Your task to perform on an android device: Open calendar and show me the third week of next month Image 0: 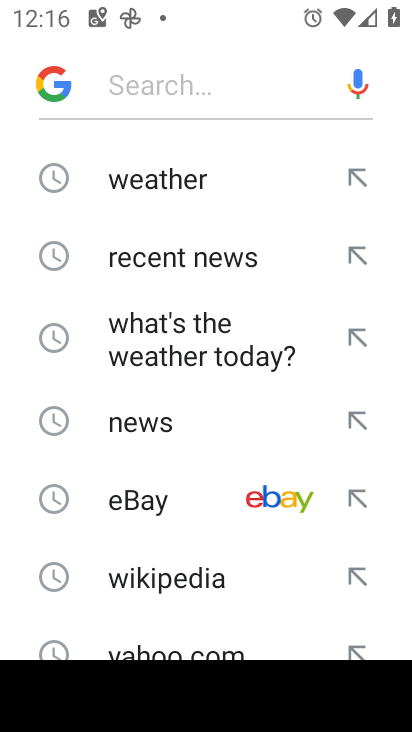
Step 0: press home button
Your task to perform on an android device: Open calendar and show me the third week of next month Image 1: 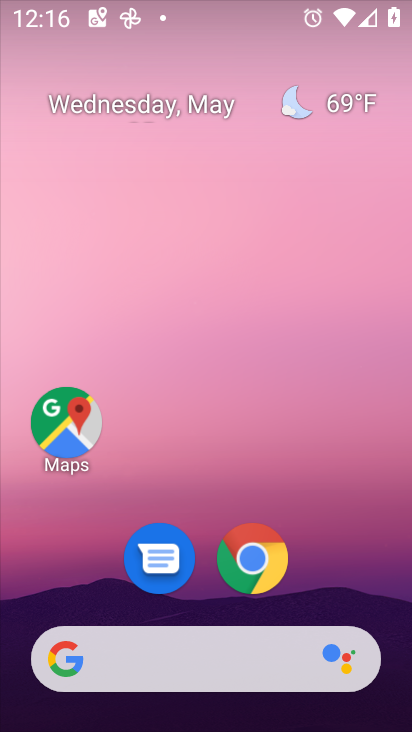
Step 1: drag from (387, 641) to (319, 34)
Your task to perform on an android device: Open calendar and show me the third week of next month Image 2: 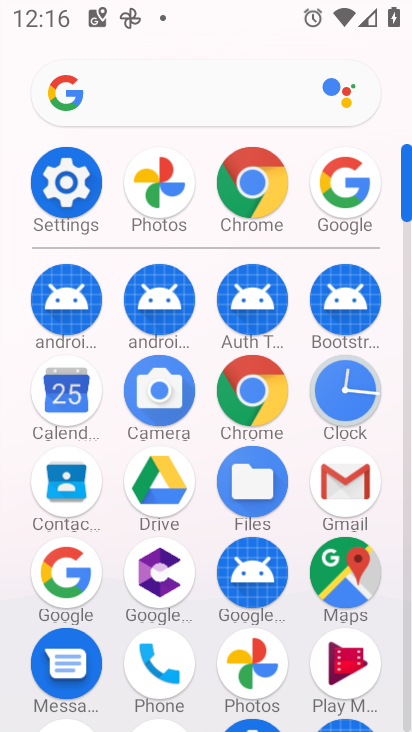
Step 2: click (75, 412)
Your task to perform on an android device: Open calendar and show me the third week of next month Image 3: 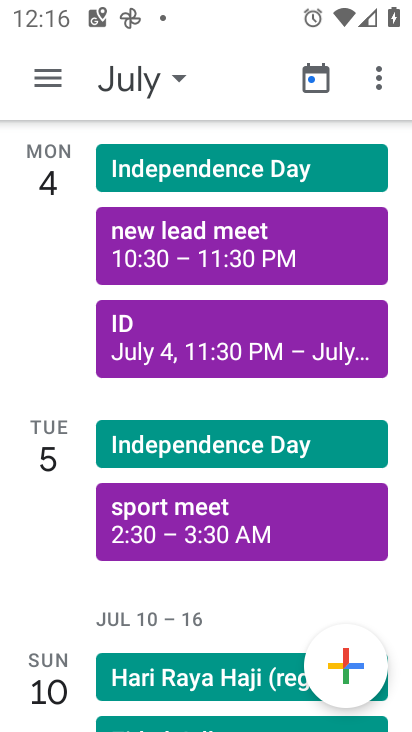
Step 3: click (129, 96)
Your task to perform on an android device: Open calendar and show me the third week of next month Image 4: 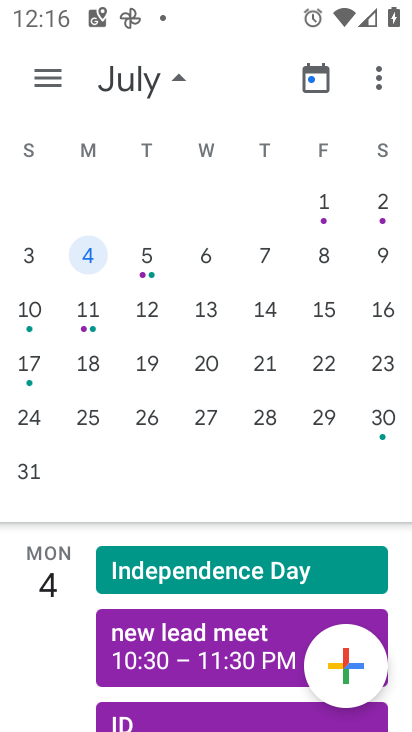
Step 4: drag from (398, 309) to (3, 290)
Your task to perform on an android device: Open calendar and show me the third week of next month Image 5: 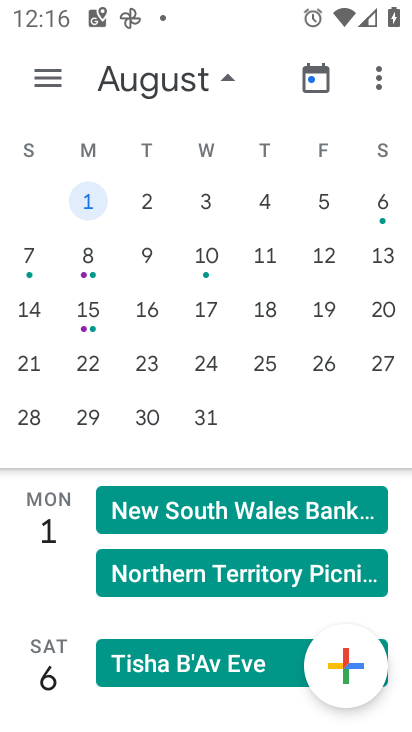
Step 5: click (141, 365)
Your task to perform on an android device: Open calendar and show me the third week of next month Image 6: 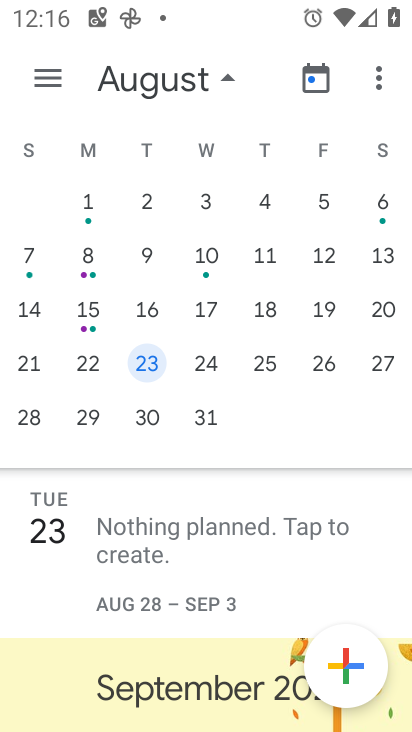
Step 6: task complete